Your task to perform on an android device: Open calendar and show me the second week of next month Image 0: 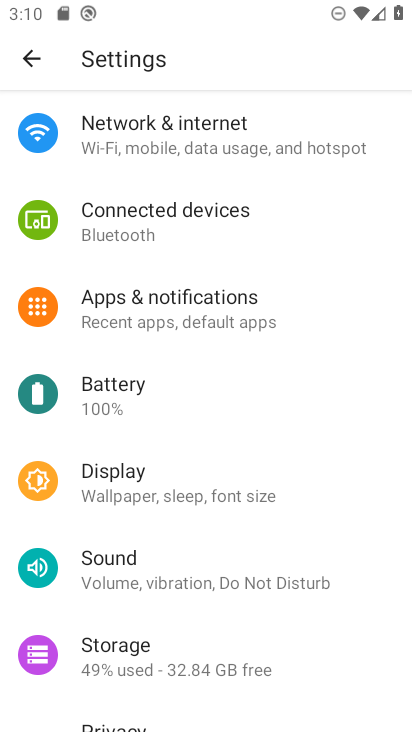
Step 0: press home button
Your task to perform on an android device: Open calendar and show me the second week of next month Image 1: 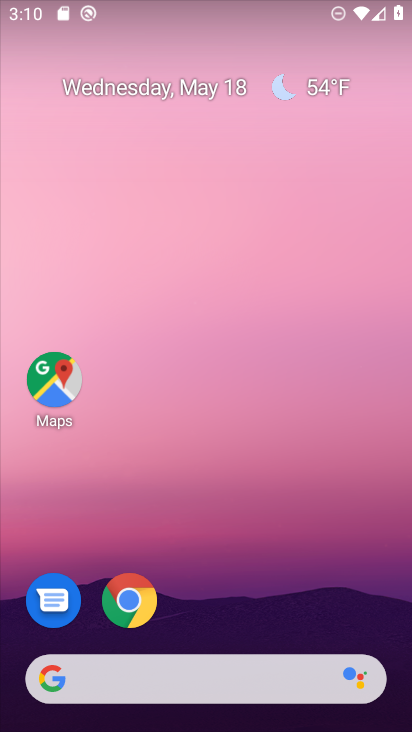
Step 1: drag from (205, 612) to (281, 274)
Your task to perform on an android device: Open calendar and show me the second week of next month Image 2: 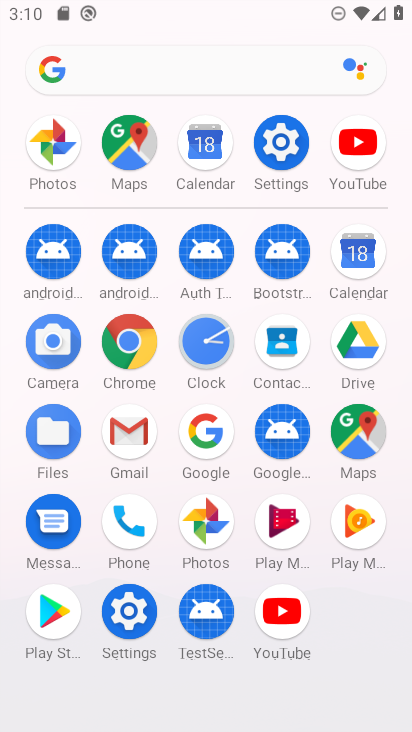
Step 2: click (362, 259)
Your task to perform on an android device: Open calendar and show me the second week of next month Image 3: 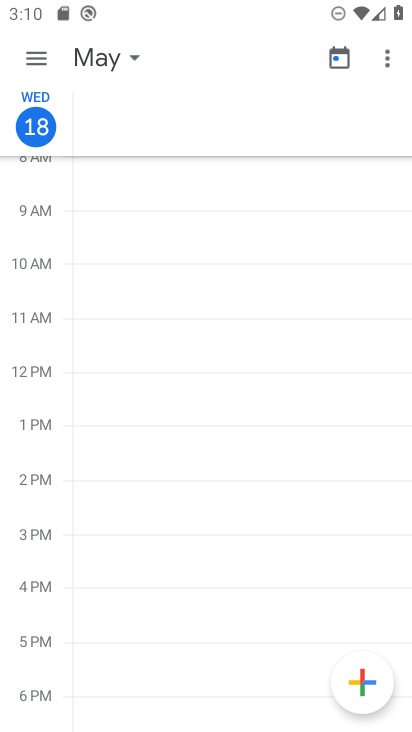
Step 3: click (38, 74)
Your task to perform on an android device: Open calendar and show me the second week of next month Image 4: 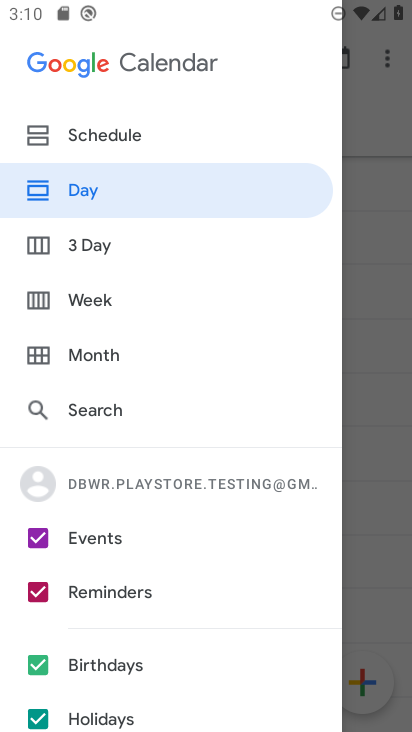
Step 4: click (116, 308)
Your task to perform on an android device: Open calendar and show me the second week of next month Image 5: 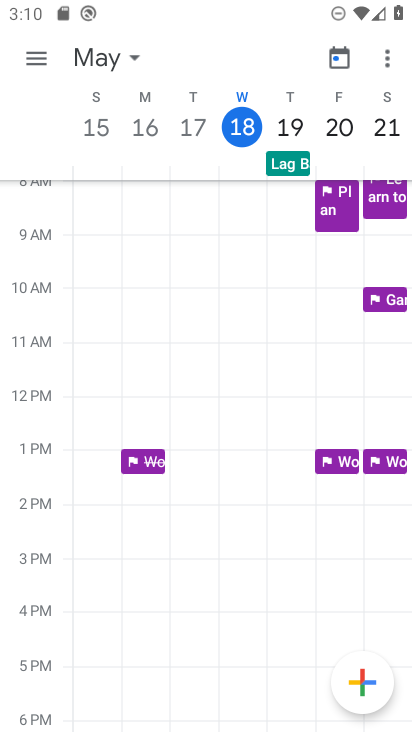
Step 5: task complete